Your task to perform on an android device: toggle wifi Image 0: 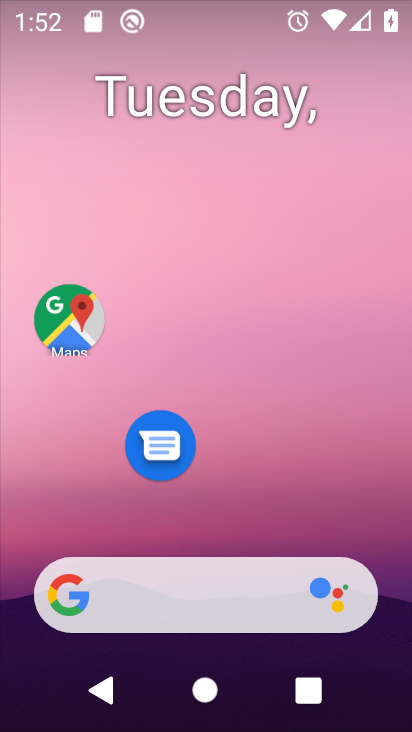
Step 0: drag from (286, 494) to (183, 18)
Your task to perform on an android device: toggle wifi Image 1: 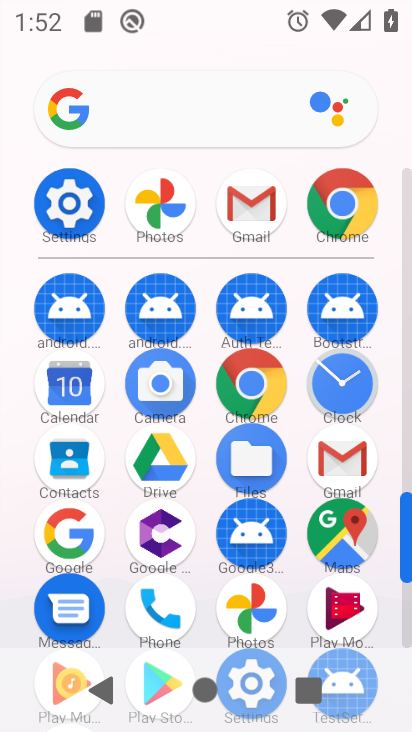
Step 1: click (60, 201)
Your task to perform on an android device: toggle wifi Image 2: 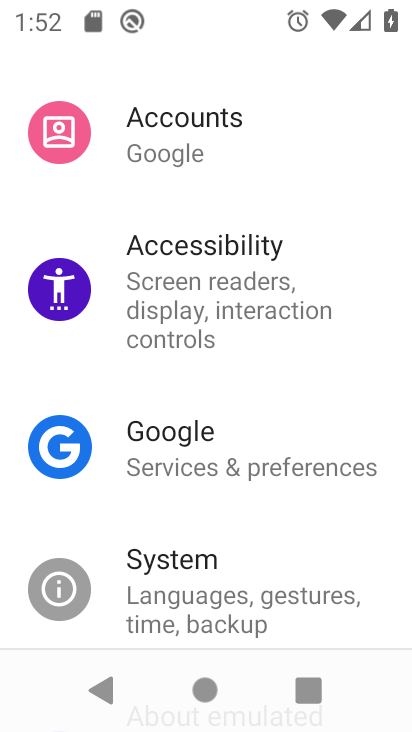
Step 2: drag from (215, 210) to (286, 610)
Your task to perform on an android device: toggle wifi Image 3: 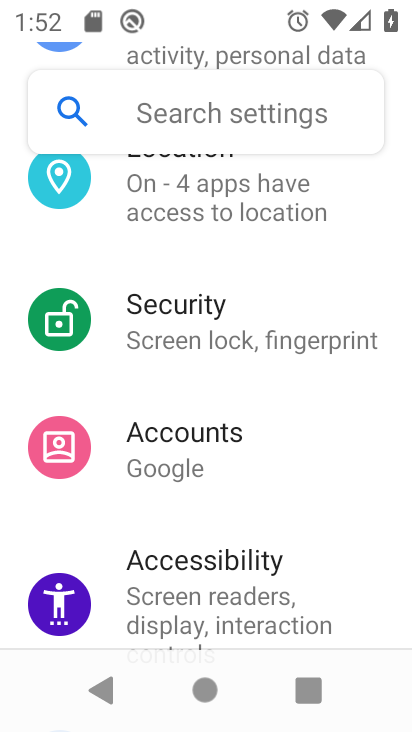
Step 3: drag from (220, 253) to (250, 590)
Your task to perform on an android device: toggle wifi Image 4: 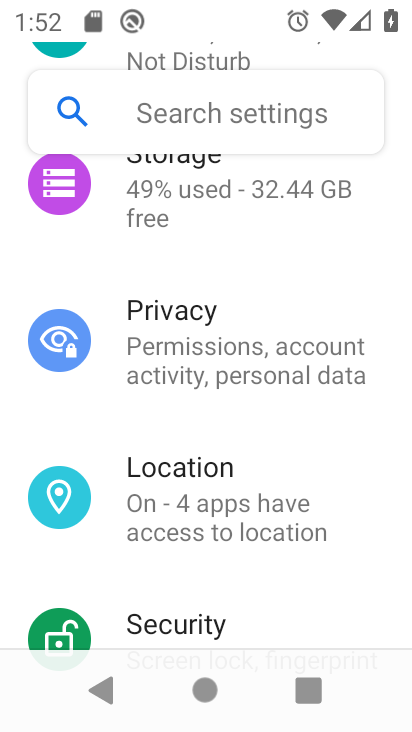
Step 4: drag from (204, 262) to (284, 706)
Your task to perform on an android device: toggle wifi Image 5: 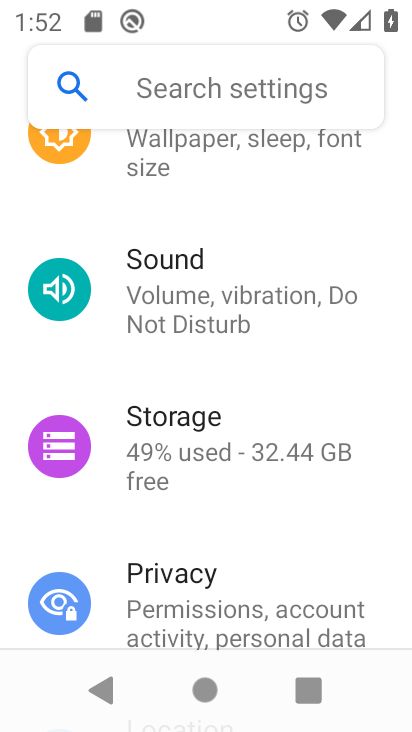
Step 5: drag from (203, 219) to (404, 525)
Your task to perform on an android device: toggle wifi Image 6: 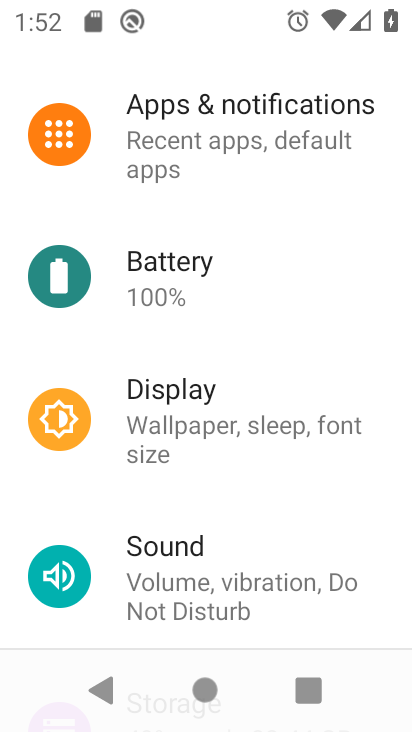
Step 6: drag from (237, 235) to (297, 716)
Your task to perform on an android device: toggle wifi Image 7: 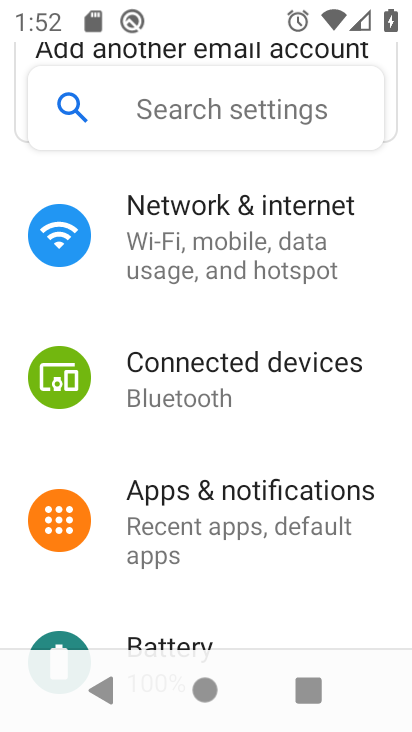
Step 7: click (183, 223)
Your task to perform on an android device: toggle wifi Image 8: 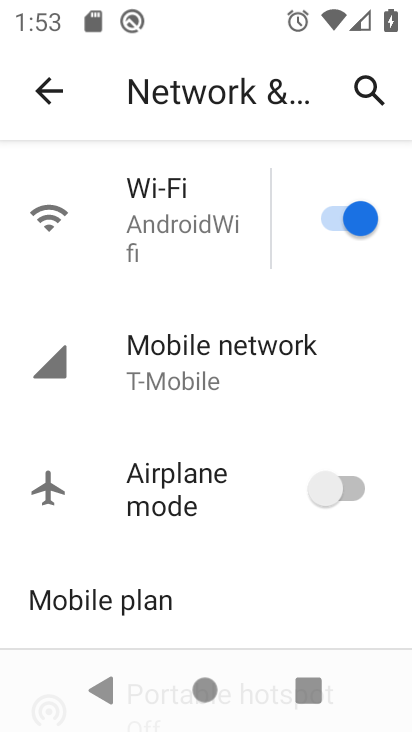
Step 8: click (360, 222)
Your task to perform on an android device: toggle wifi Image 9: 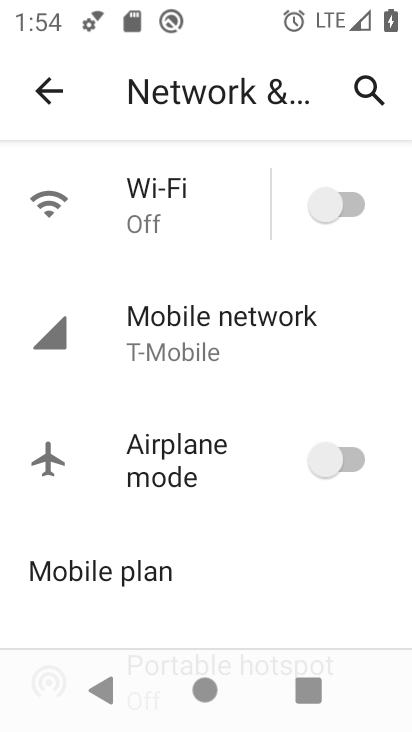
Step 9: task complete